Your task to perform on an android device: clear all cookies in the chrome app Image 0: 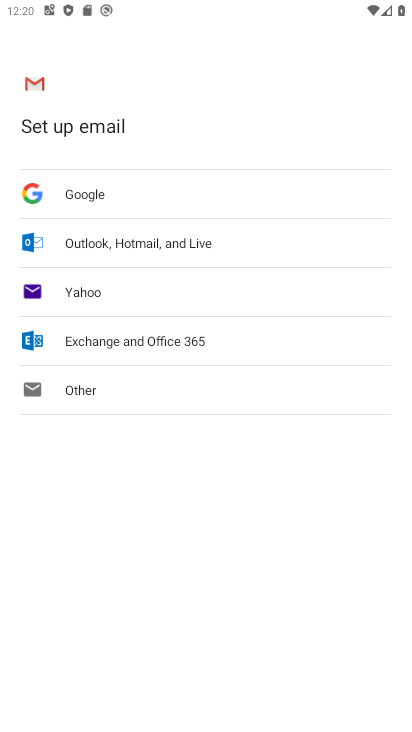
Step 0: press home button
Your task to perform on an android device: clear all cookies in the chrome app Image 1: 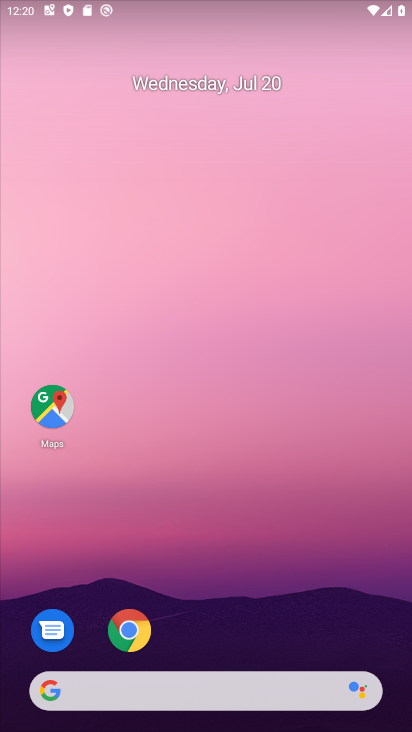
Step 1: click (128, 643)
Your task to perform on an android device: clear all cookies in the chrome app Image 2: 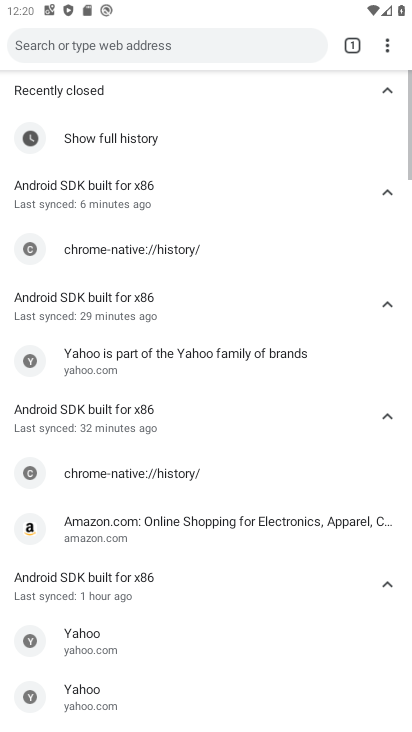
Step 2: drag from (386, 43) to (210, 387)
Your task to perform on an android device: clear all cookies in the chrome app Image 3: 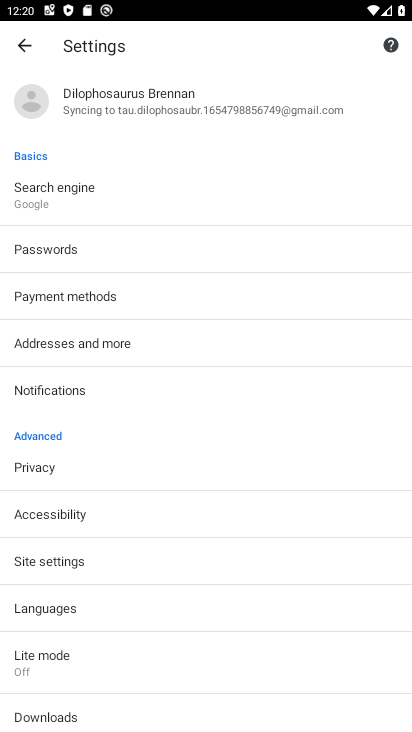
Step 3: click (34, 471)
Your task to perform on an android device: clear all cookies in the chrome app Image 4: 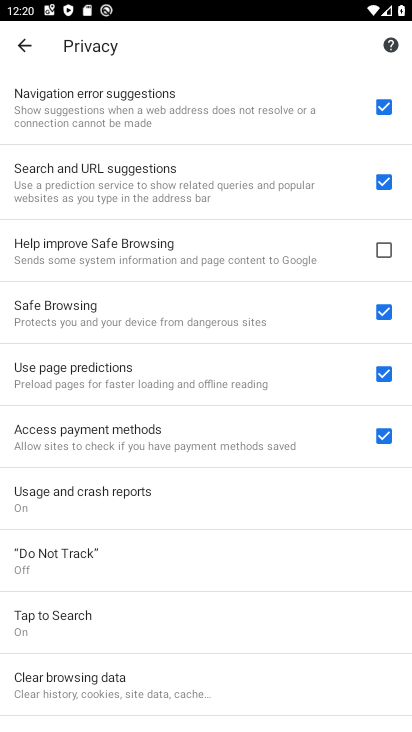
Step 4: click (106, 677)
Your task to perform on an android device: clear all cookies in the chrome app Image 5: 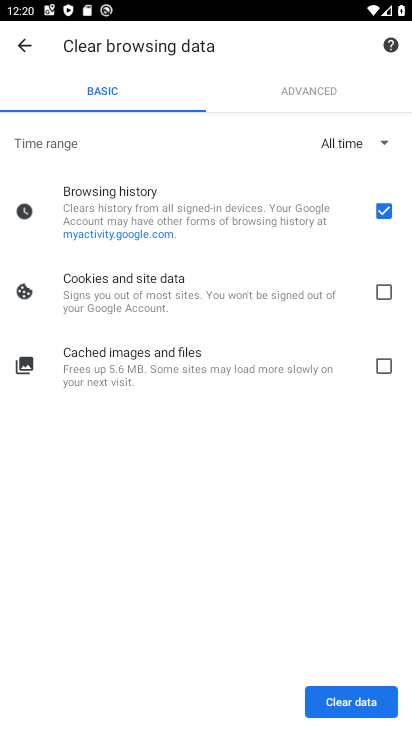
Step 5: click (391, 295)
Your task to perform on an android device: clear all cookies in the chrome app Image 6: 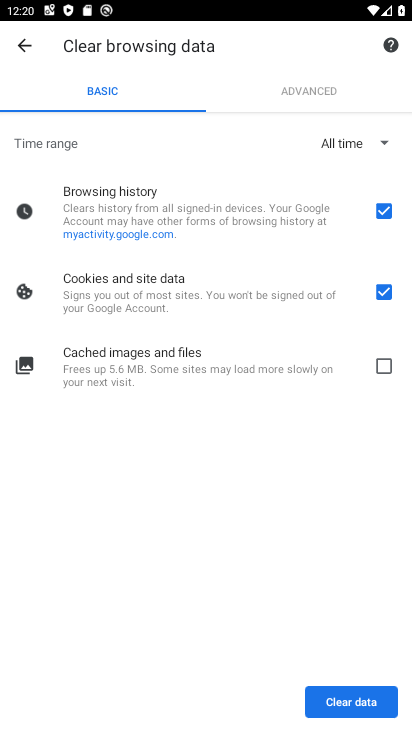
Step 6: click (389, 214)
Your task to perform on an android device: clear all cookies in the chrome app Image 7: 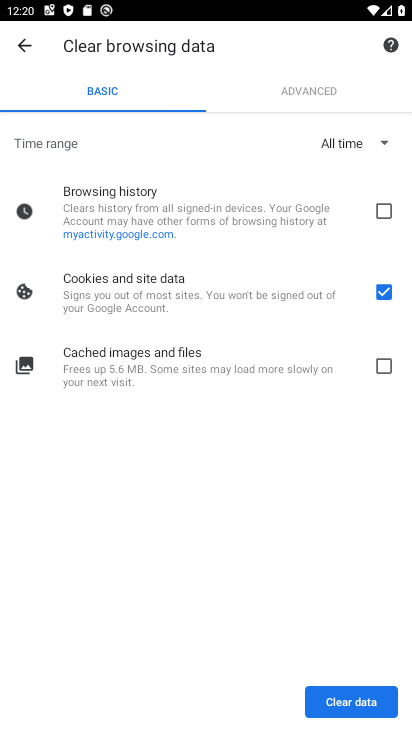
Step 7: click (332, 701)
Your task to perform on an android device: clear all cookies in the chrome app Image 8: 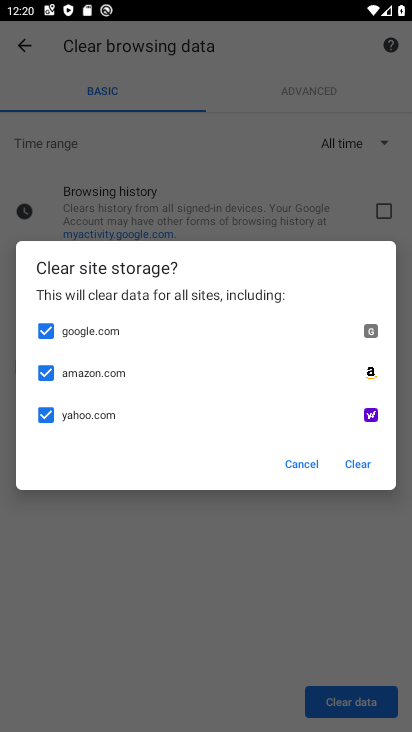
Step 8: click (355, 465)
Your task to perform on an android device: clear all cookies in the chrome app Image 9: 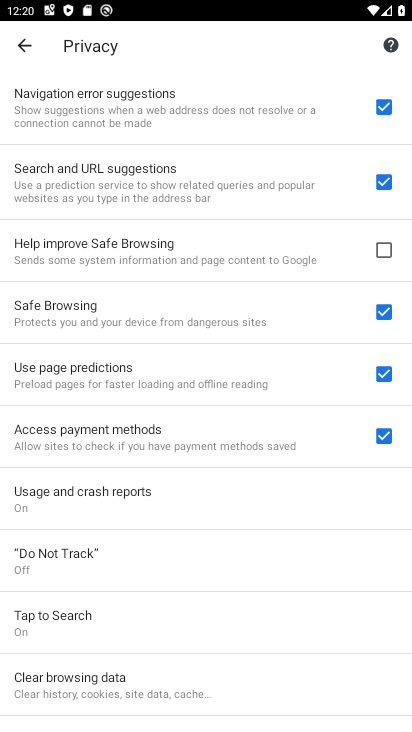
Step 9: task complete